Your task to perform on an android device: Search for seafood restaurants on Google Maps Image 0: 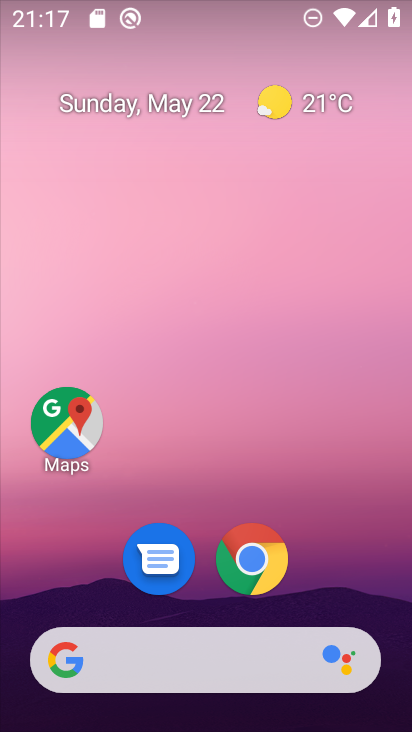
Step 0: drag from (283, 678) to (264, 235)
Your task to perform on an android device: Search for seafood restaurants on Google Maps Image 1: 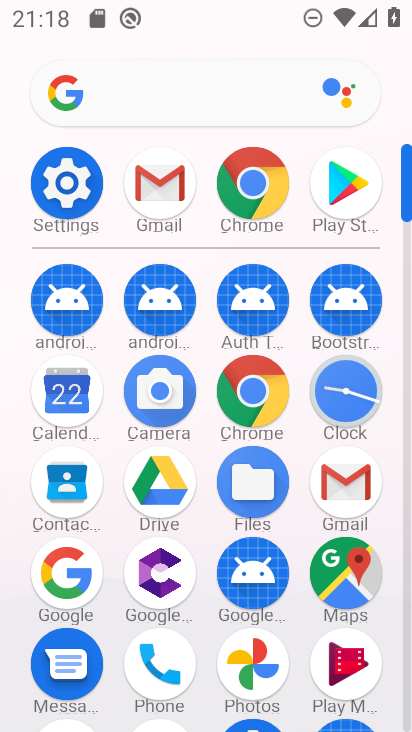
Step 1: click (324, 587)
Your task to perform on an android device: Search for seafood restaurants on Google Maps Image 2: 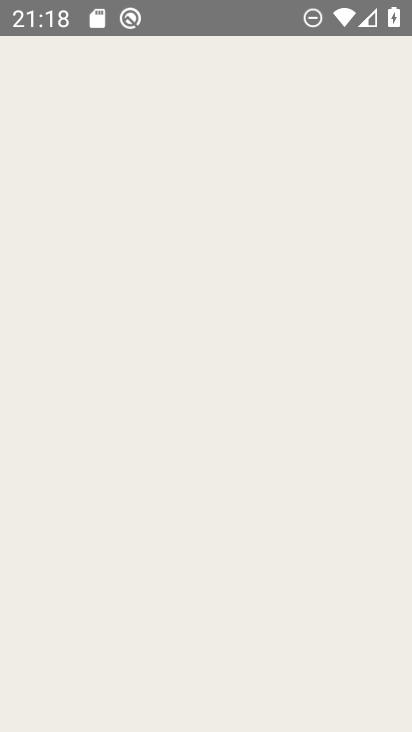
Step 2: click (199, 209)
Your task to perform on an android device: Search for seafood restaurants on Google Maps Image 3: 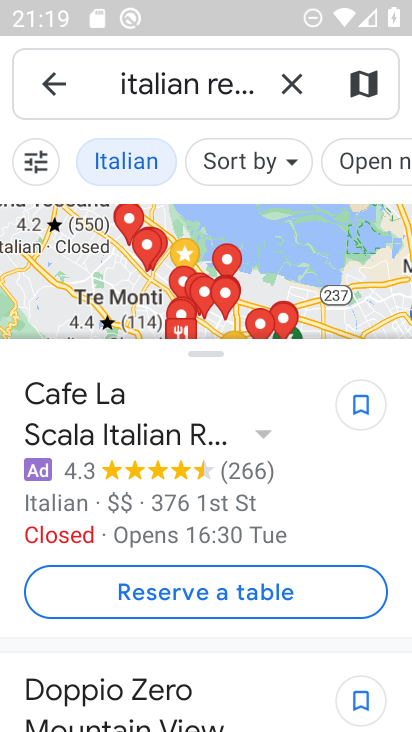
Step 3: click (289, 80)
Your task to perform on an android device: Search for seafood restaurants on Google Maps Image 4: 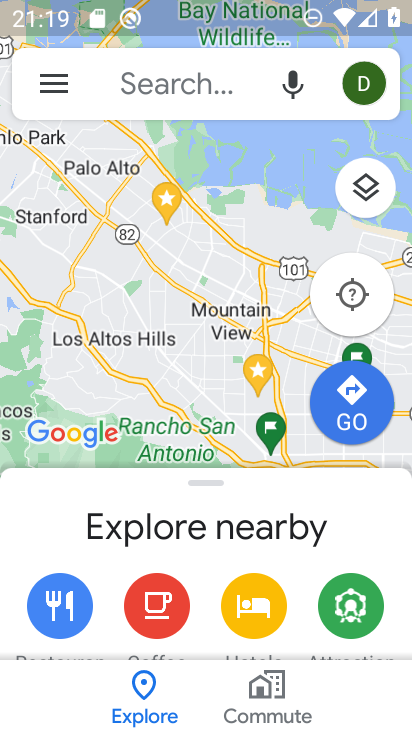
Step 4: click (149, 79)
Your task to perform on an android device: Search for seafood restaurants on Google Maps Image 5: 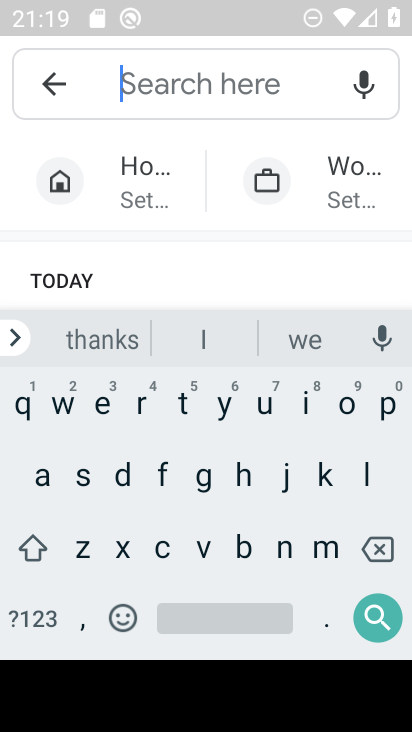
Step 5: click (75, 482)
Your task to perform on an android device: Search for seafood restaurants on Google Maps Image 6: 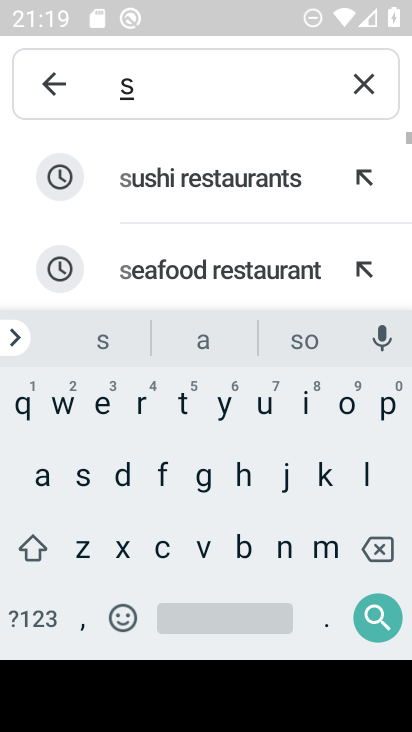
Step 6: click (101, 408)
Your task to perform on an android device: Search for seafood restaurants on Google Maps Image 7: 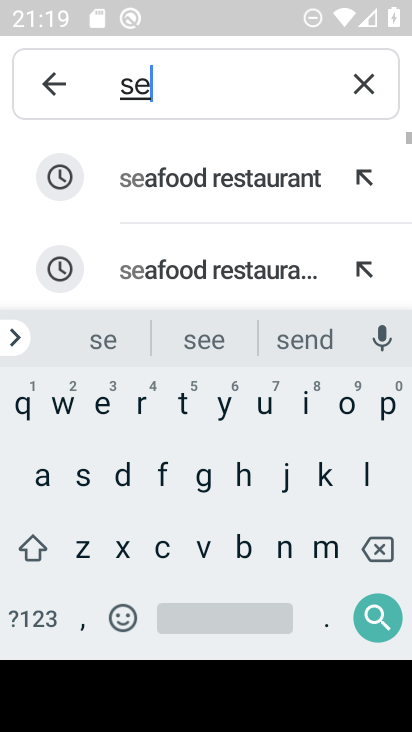
Step 7: click (234, 190)
Your task to perform on an android device: Search for seafood restaurants on Google Maps Image 8: 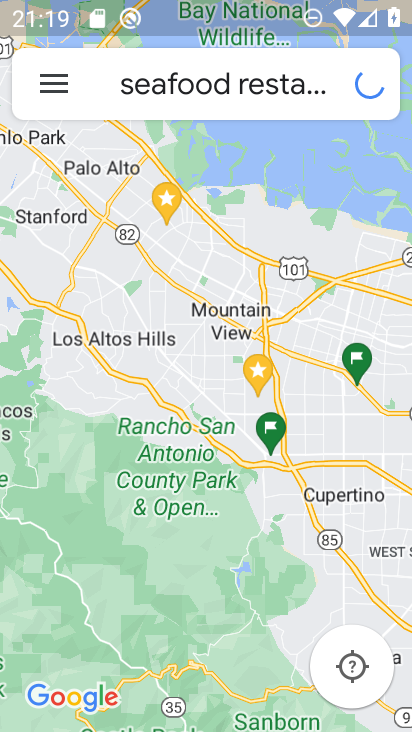
Step 8: task complete